Your task to perform on an android device: See recent photos Image 0: 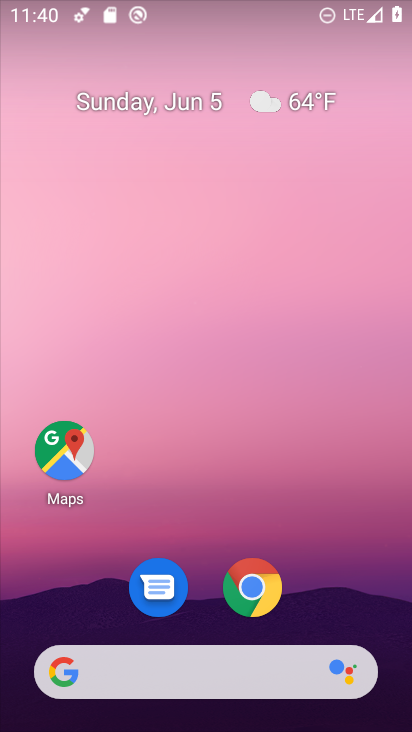
Step 0: drag from (204, 618) to (376, 209)
Your task to perform on an android device: See recent photos Image 1: 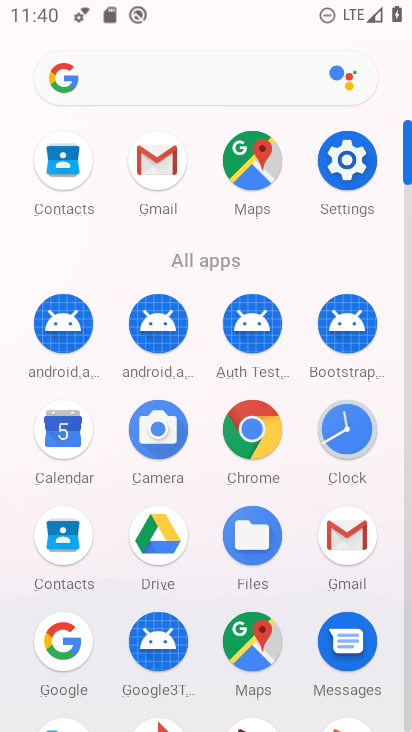
Step 1: drag from (210, 611) to (236, 304)
Your task to perform on an android device: See recent photos Image 2: 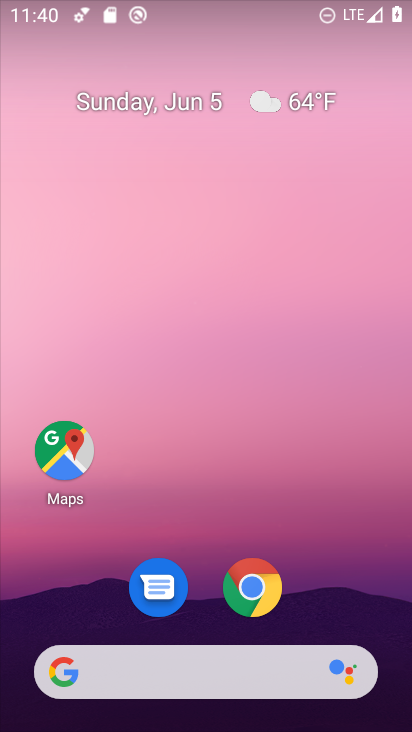
Step 2: drag from (202, 622) to (246, 122)
Your task to perform on an android device: See recent photos Image 3: 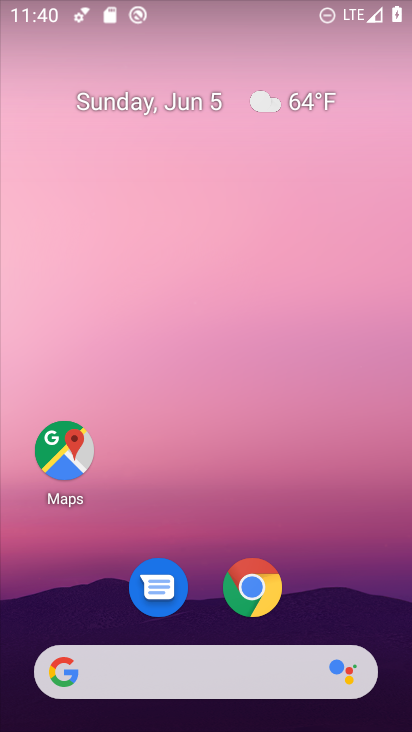
Step 3: drag from (184, 628) to (175, 171)
Your task to perform on an android device: See recent photos Image 4: 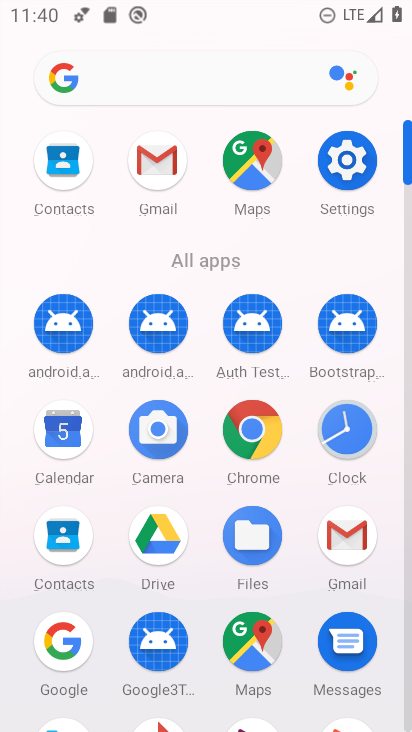
Step 4: drag from (214, 642) to (299, 23)
Your task to perform on an android device: See recent photos Image 5: 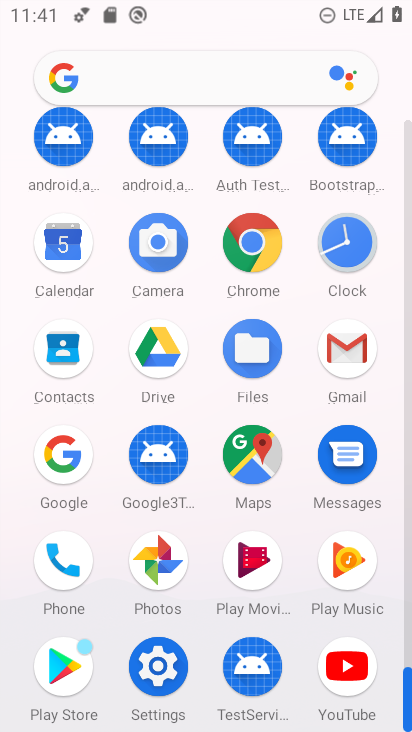
Step 5: click (156, 546)
Your task to perform on an android device: See recent photos Image 6: 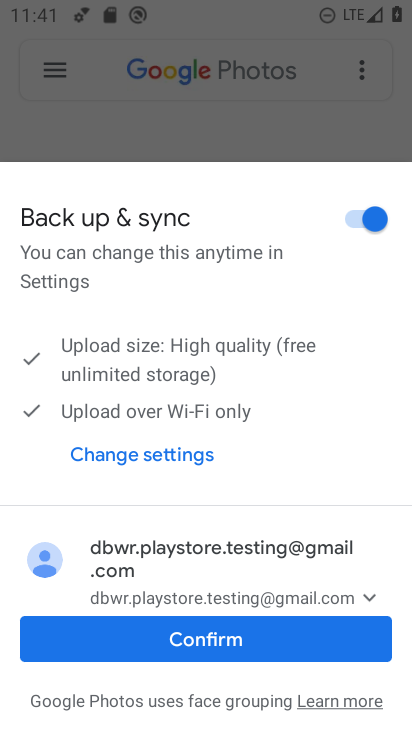
Step 6: click (155, 624)
Your task to perform on an android device: See recent photos Image 7: 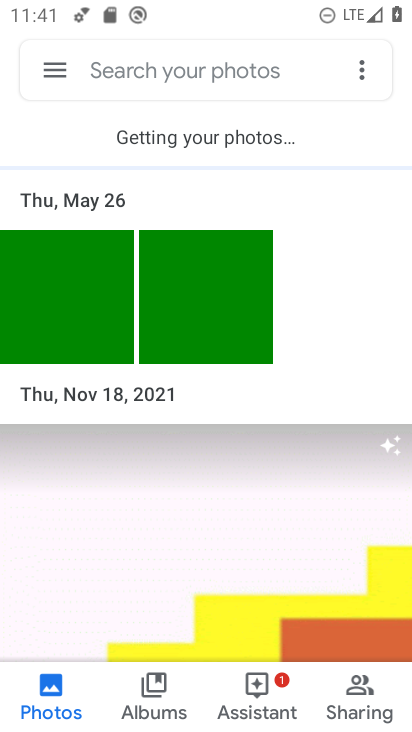
Step 7: task complete